Your task to perform on an android device: delete browsing data in the chrome app Image 0: 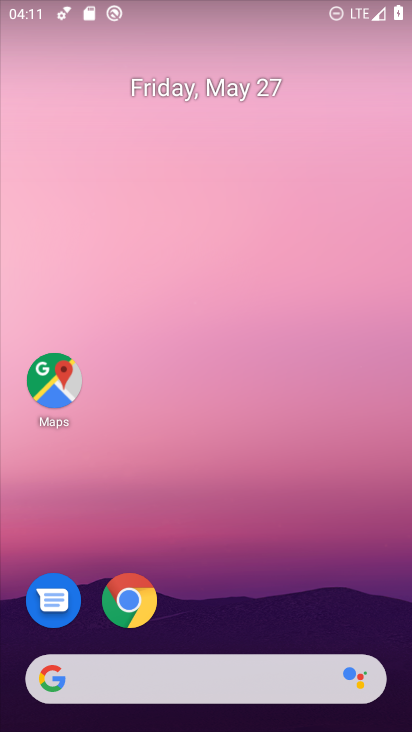
Step 0: click (133, 598)
Your task to perform on an android device: delete browsing data in the chrome app Image 1: 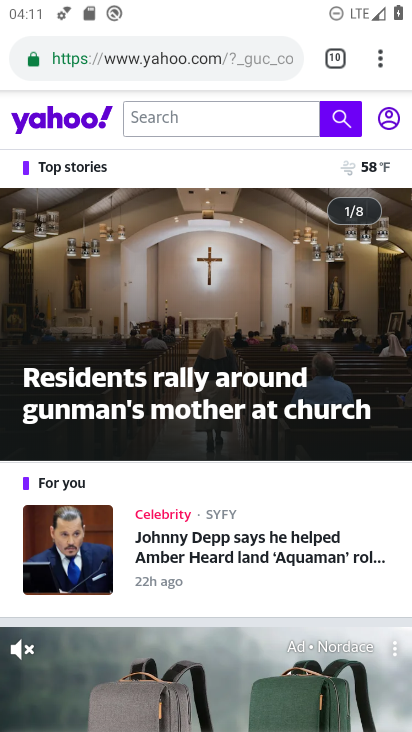
Step 1: click (381, 59)
Your task to perform on an android device: delete browsing data in the chrome app Image 2: 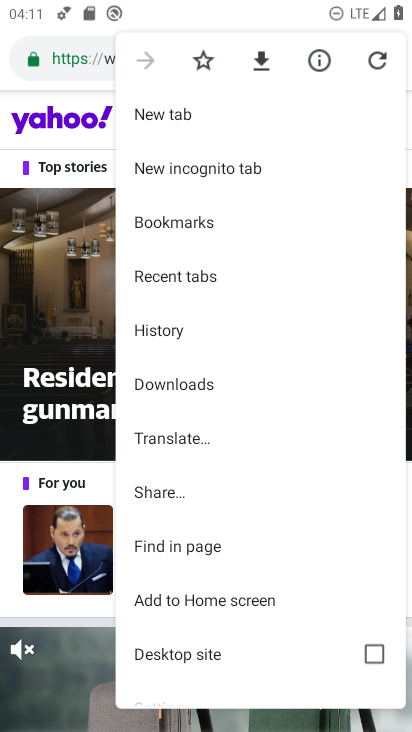
Step 2: click (170, 324)
Your task to perform on an android device: delete browsing data in the chrome app Image 3: 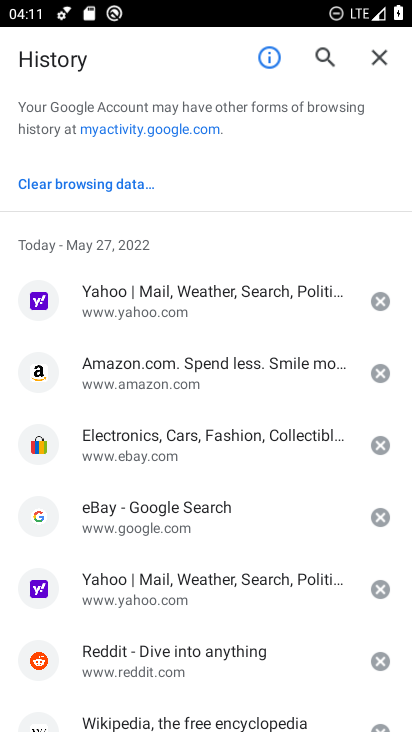
Step 3: click (73, 180)
Your task to perform on an android device: delete browsing data in the chrome app Image 4: 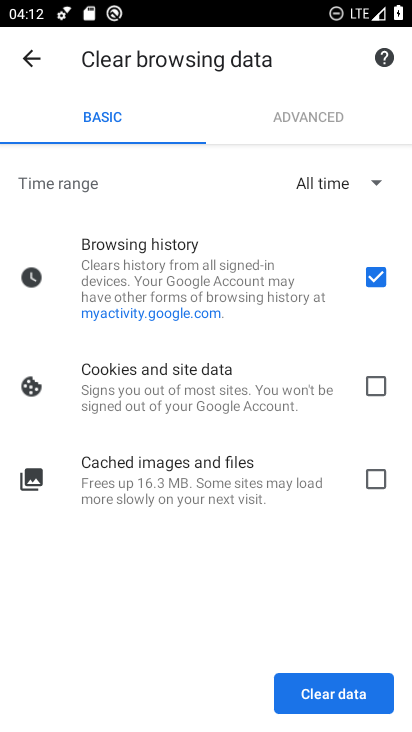
Step 4: click (348, 677)
Your task to perform on an android device: delete browsing data in the chrome app Image 5: 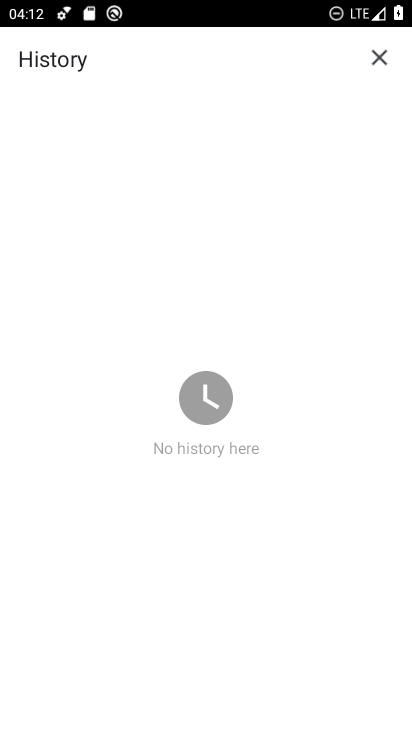
Step 5: task complete